Your task to perform on an android device: turn off javascript in the chrome app Image 0: 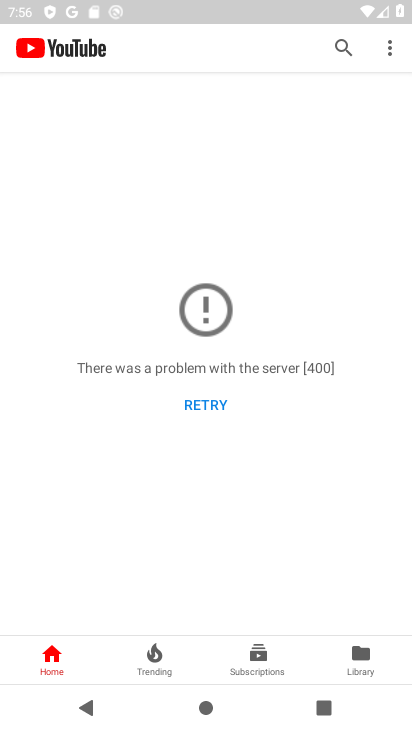
Step 0: press home button
Your task to perform on an android device: turn off javascript in the chrome app Image 1: 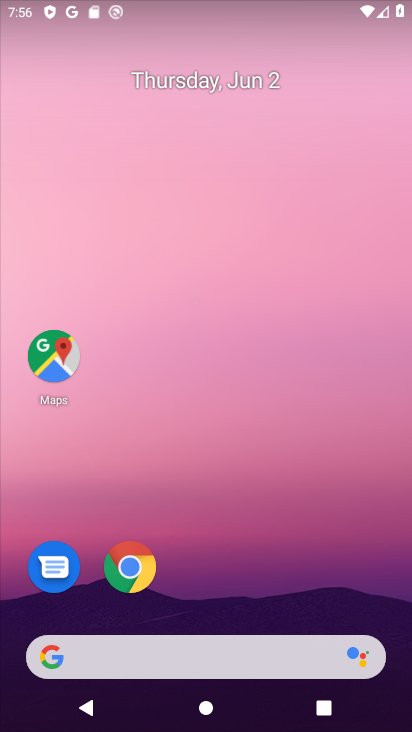
Step 1: click (129, 569)
Your task to perform on an android device: turn off javascript in the chrome app Image 2: 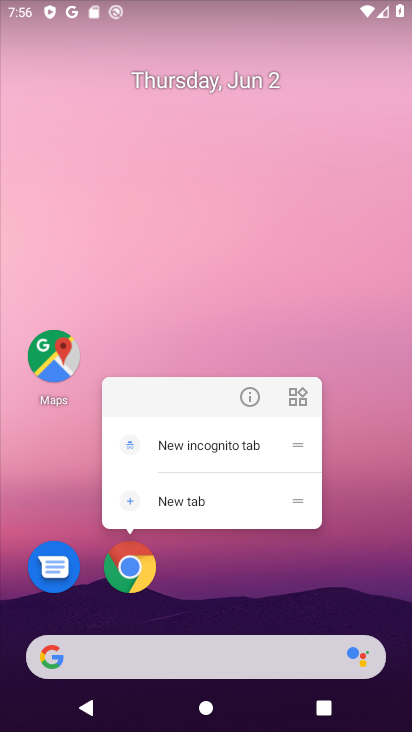
Step 2: click (129, 569)
Your task to perform on an android device: turn off javascript in the chrome app Image 3: 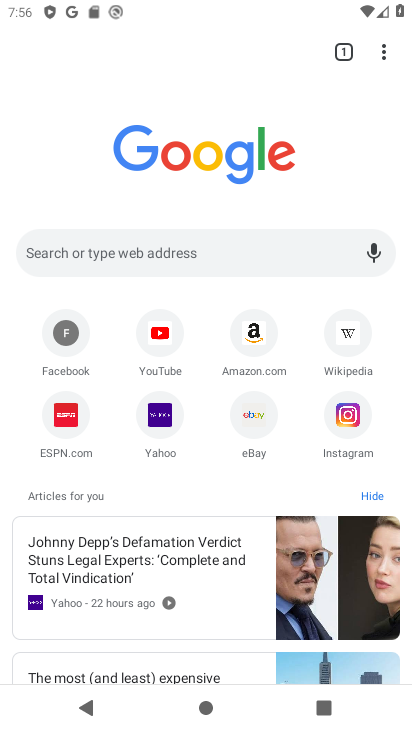
Step 3: click (381, 46)
Your task to perform on an android device: turn off javascript in the chrome app Image 4: 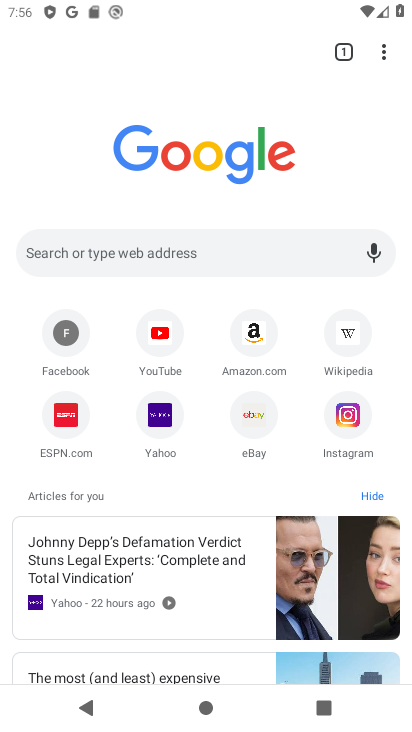
Step 4: drag from (393, 40) to (246, 428)
Your task to perform on an android device: turn off javascript in the chrome app Image 5: 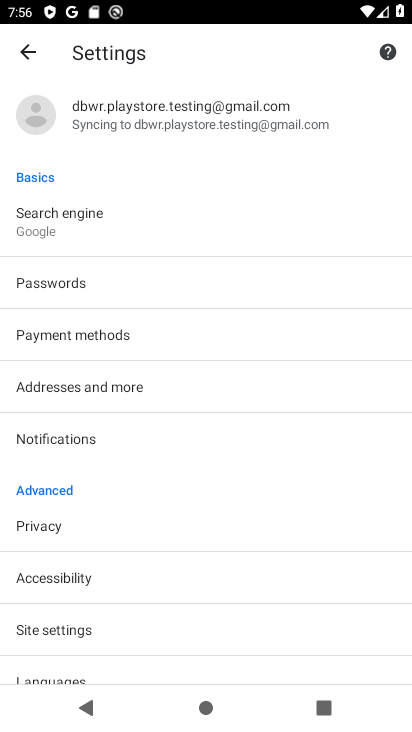
Step 5: drag from (251, 546) to (278, 264)
Your task to perform on an android device: turn off javascript in the chrome app Image 6: 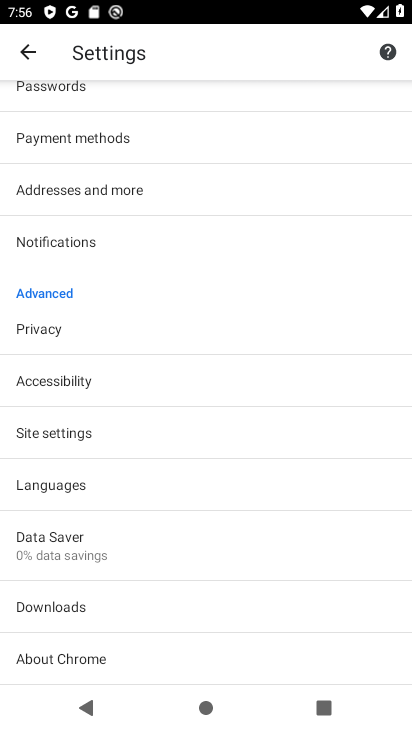
Step 6: click (102, 427)
Your task to perform on an android device: turn off javascript in the chrome app Image 7: 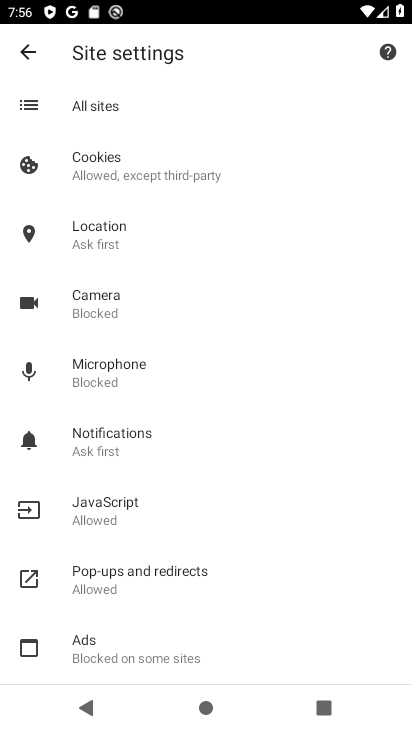
Step 7: click (123, 519)
Your task to perform on an android device: turn off javascript in the chrome app Image 8: 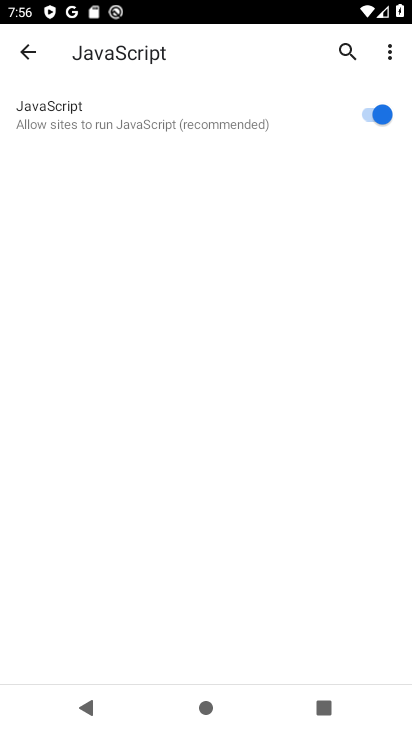
Step 8: click (362, 132)
Your task to perform on an android device: turn off javascript in the chrome app Image 9: 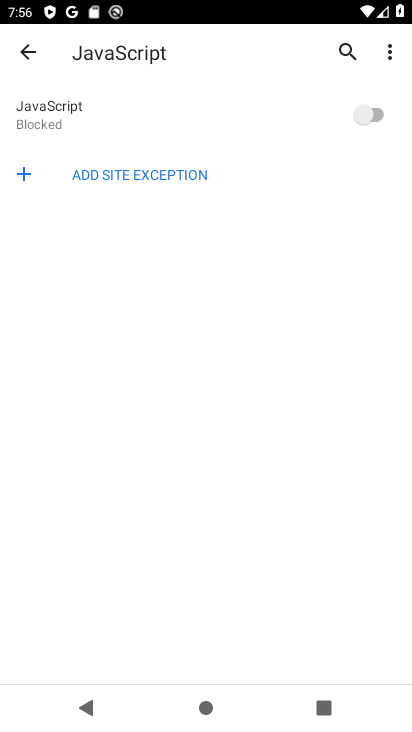
Step 9: task complete